Your task to perform on an android device: toggle notifications settings in the gmail app Image 0: 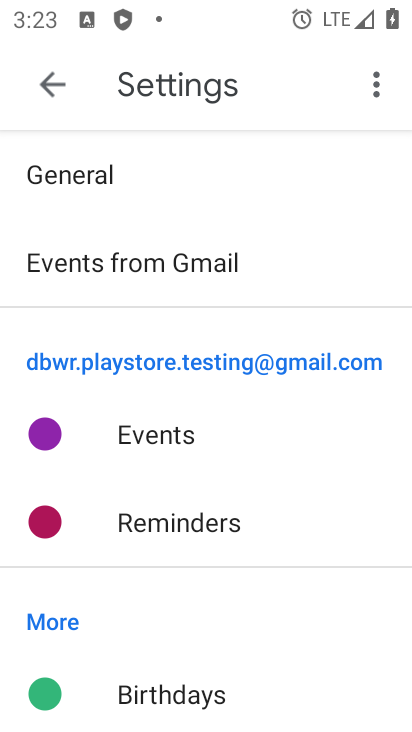
Step 0: press home button
Your task to perform on an android device: toggle notifications settings in the gmail app Image 1: 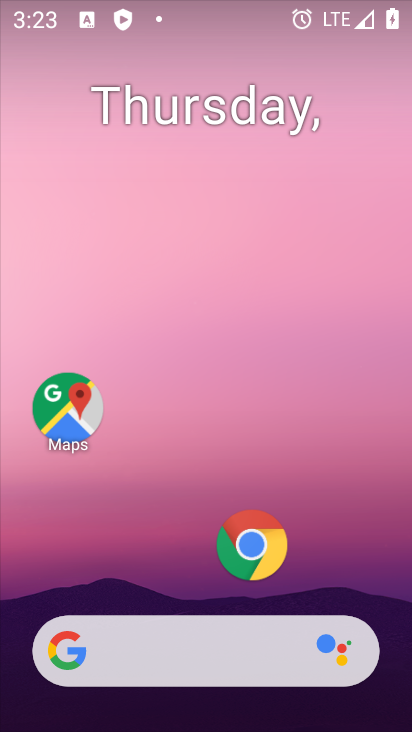
Step 1: drag from (197, 672) to (187, 51)
Your task to perform on an android device: toggle notifications settings in the gmail app Image 2: 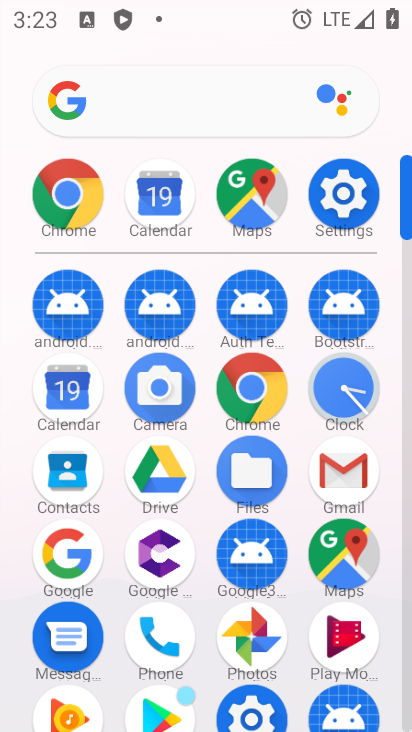
Step 2: click (346, 480)
Your task to perform on an android device: toggle notifications settings in the gmail app Image 3: 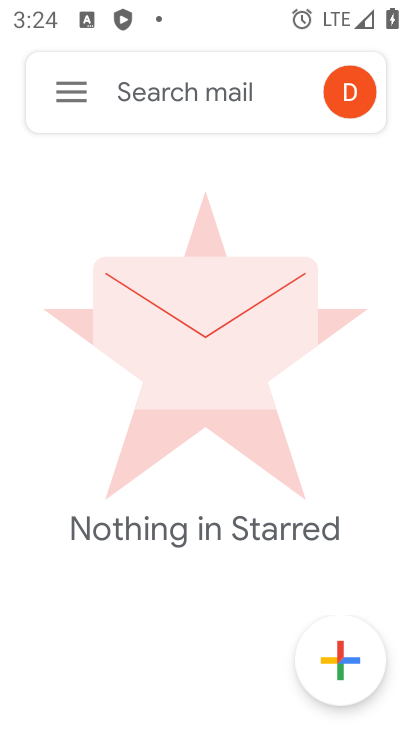
Step 3: click (78, 94)
Your task to perform on an android device: toggle notifications settings in the gmail app Image 4: 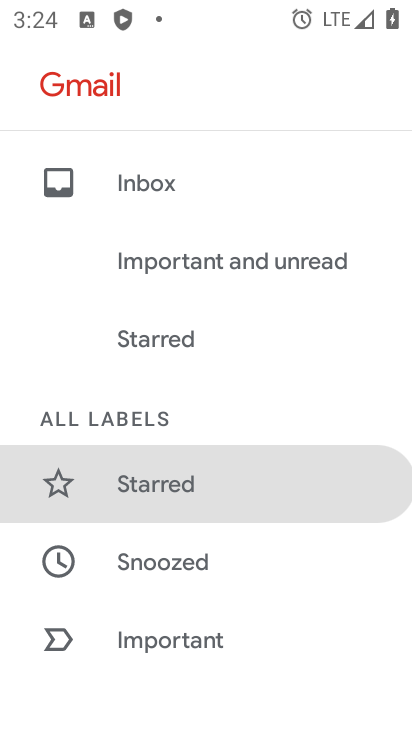
Step 4: drag from (204, 679) to (144, 159)
Your task to perform on an android device: toggle notifications settings in the gmail app Image 5: 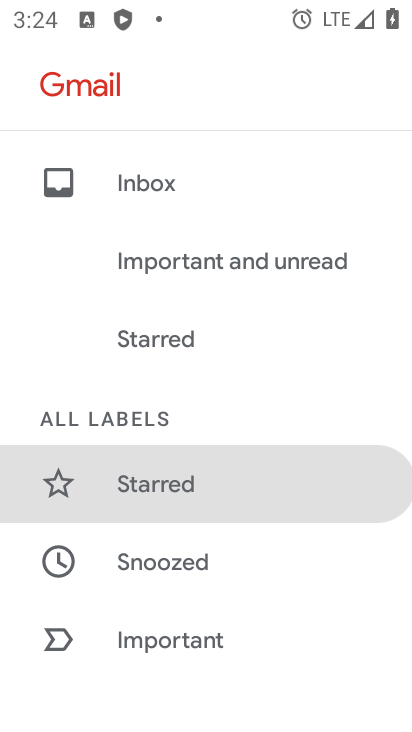
Step 5: click (123, 82)
Your task to perform on an android device: toggle notifications settings in the gmail app Image 6: 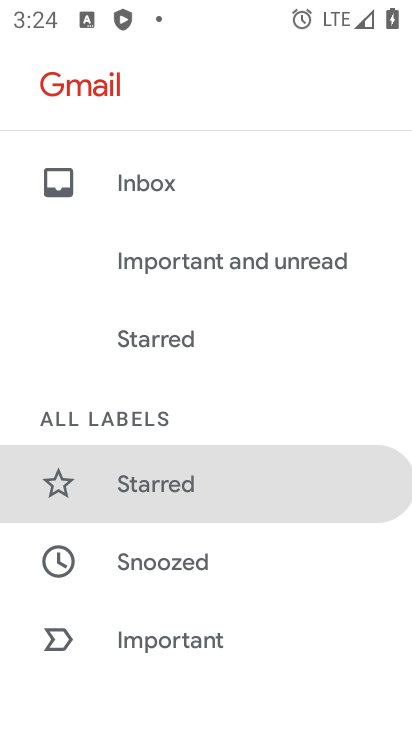
Step 6: drag from (254, 566) to (186, 11)
Your task to perform on an android device: toggle notifications settings in the gmail app Image 7: 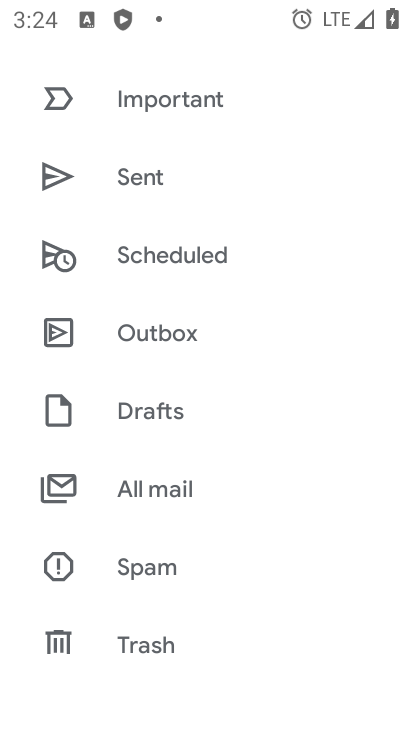
Step 7: drag from (257, 565) to (195, 6)
Your task to perform on an android device: toggle notifications settings in the gmail app Image 8: 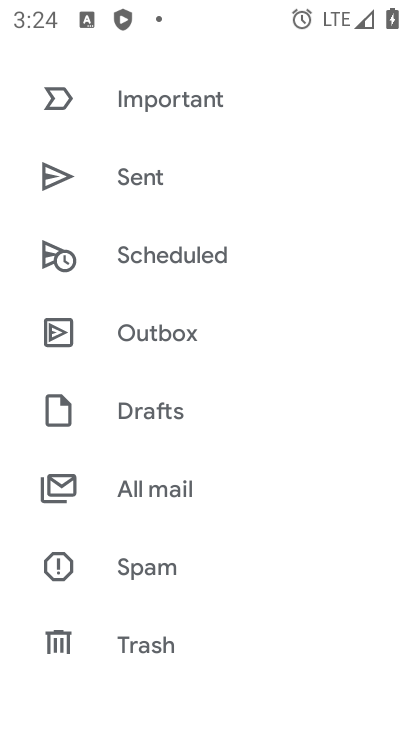
Step 8: drag from (192, 515) to (244, 44)
Your task to perform on an android device: toggle notifications settings in the gmail app Image 9: 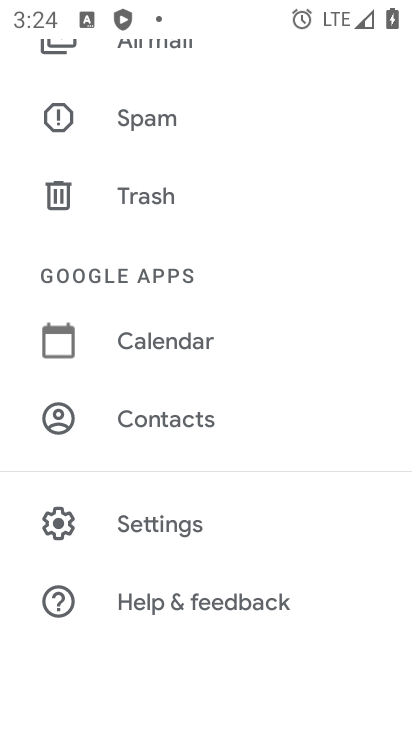
Step 9: click (190, 540)
Your task to perform on an android device: toggle notifications settings in the gmail app Image 10: 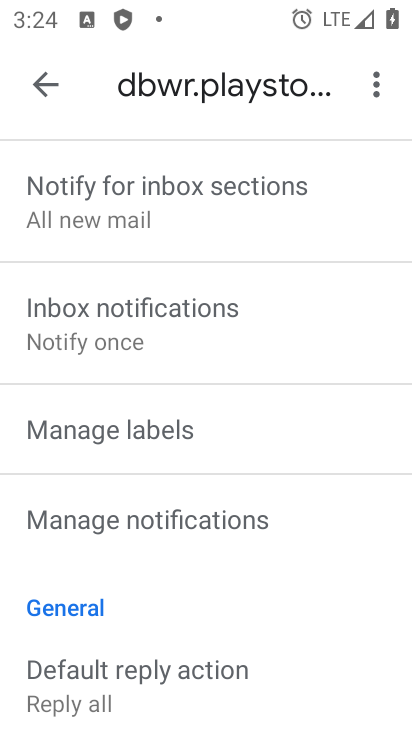
Step 10: click (173, 506)
Your task to perform on an android device: toggle notifications settings in the gmail app Image 11: 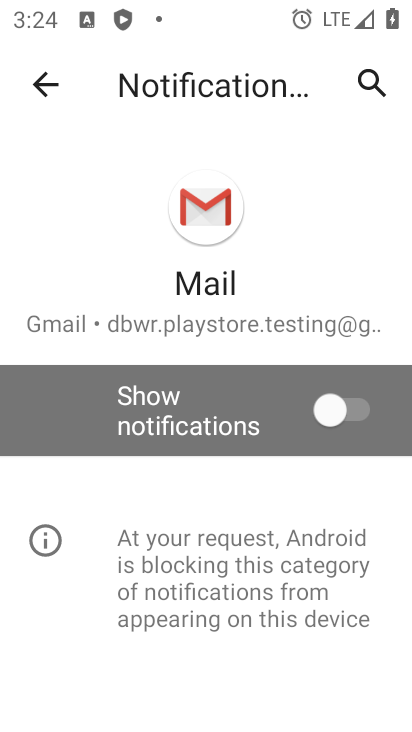
Step 11: click (352, 407)
Your task to perform on an android device: toggle notifications settings in the gmail app Image 12: 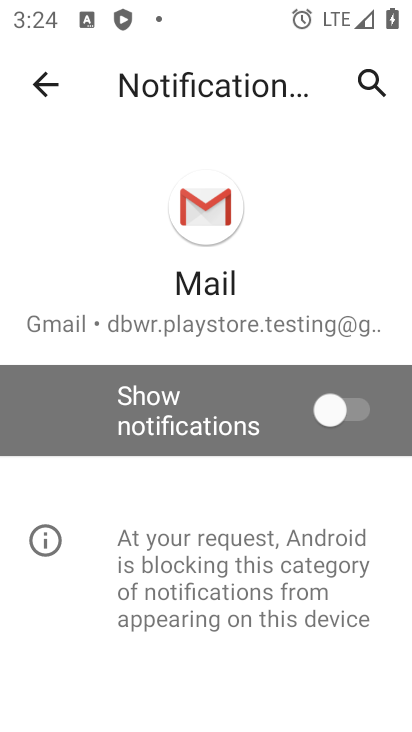
Step 12: task complete